Your task to perform on an android device: turn pop-ups off in chrome Image 0: 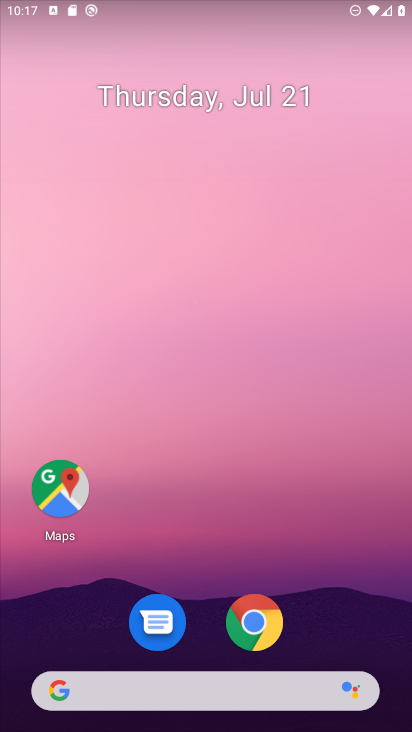
Step 0: click (263, 615)
Your task to perform on an android device: turn pop-ups off in chrome Image 1: 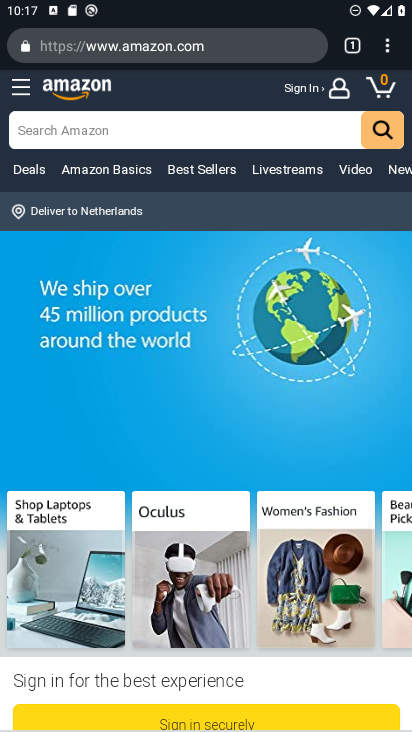
Step 1: click (386, 45)
Your task to perform on an android device: turn pop-ups off in chrome Image 2: 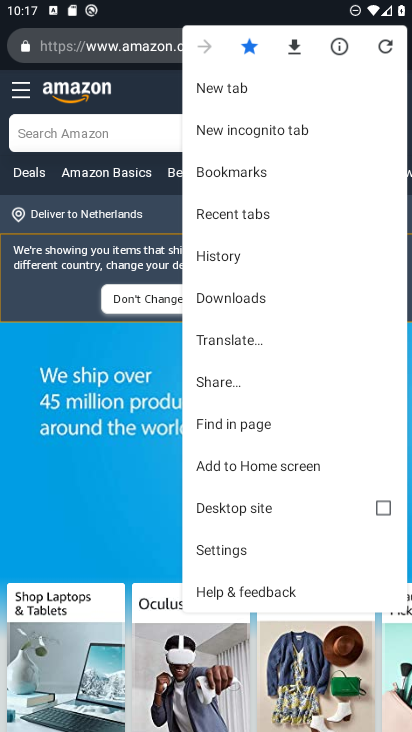
Step 2: click (245, 548)
Your task to perform on an android device: turn pop-ups off in chrome Image 3: 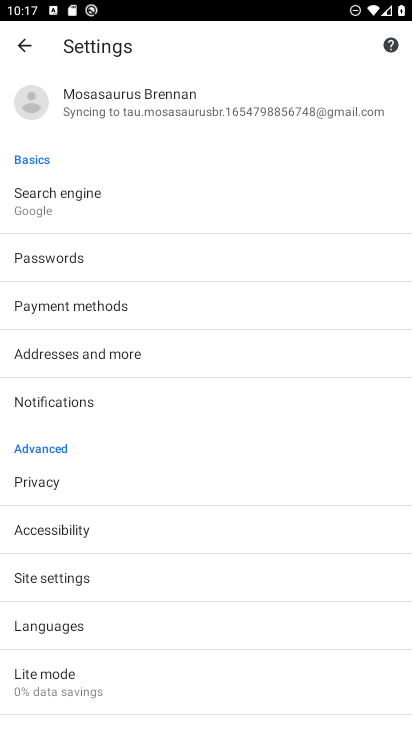
Step 3: click (85, 572)
Your task to perform on an android device: turn pop-ups off in chrome Image 4: 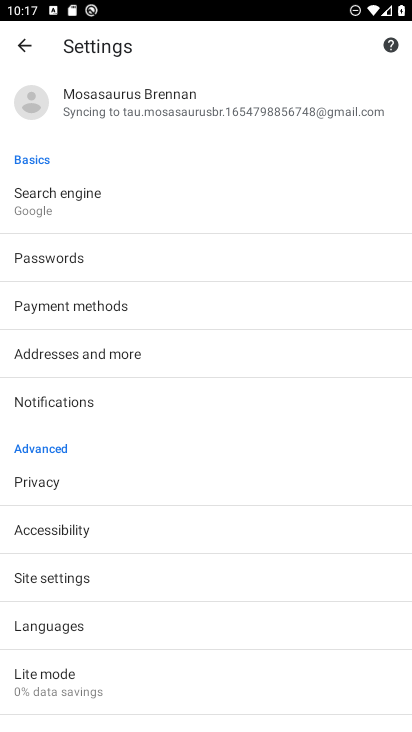
Step 4: click (85, 572)
Your task to perform on an android device: turn pop-ups off in chrome Image 5: 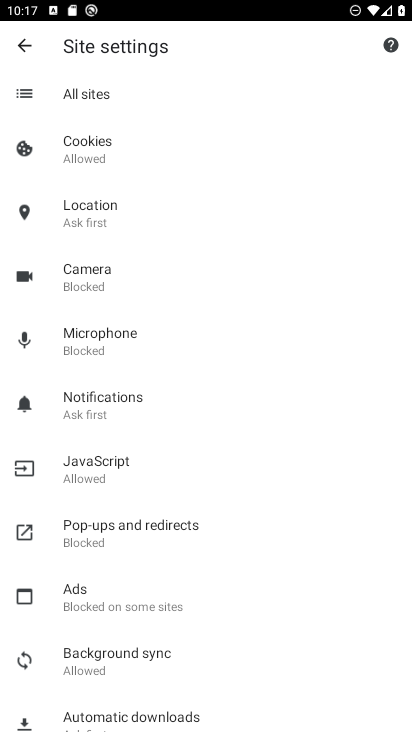
Step 5: click (121, 535)
Your task to perform on an android device: turn pop-ups off in chrome Image 6: 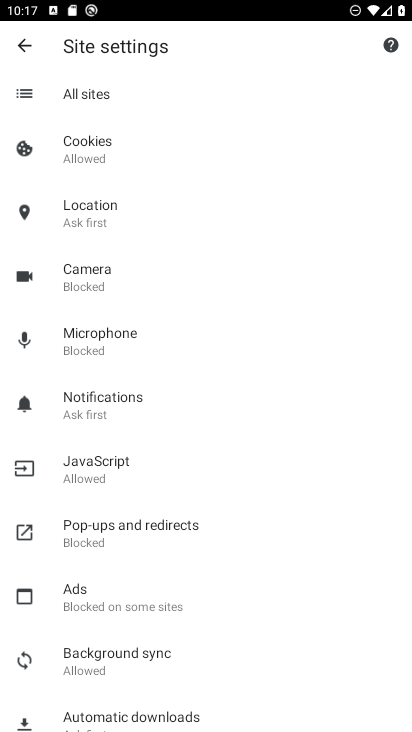
Step 6: click (121, 535)
Your task to perform on an android device: turn pop-ups off in chrome Image 7: 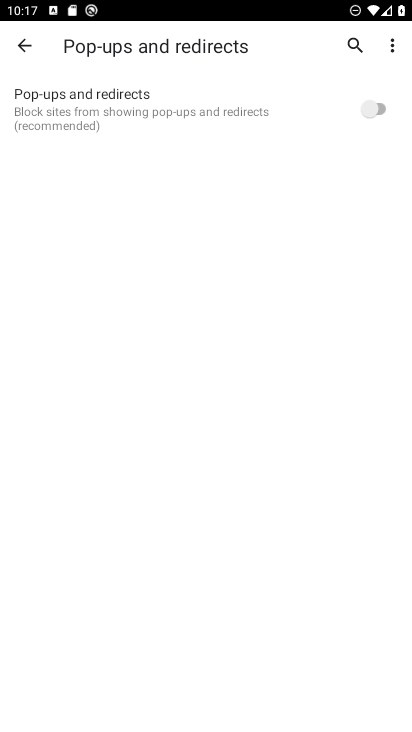
Step 7: task complete